Your task to perform on an android device: Open the Play Movies app and select the watchlist tab. Image 0: 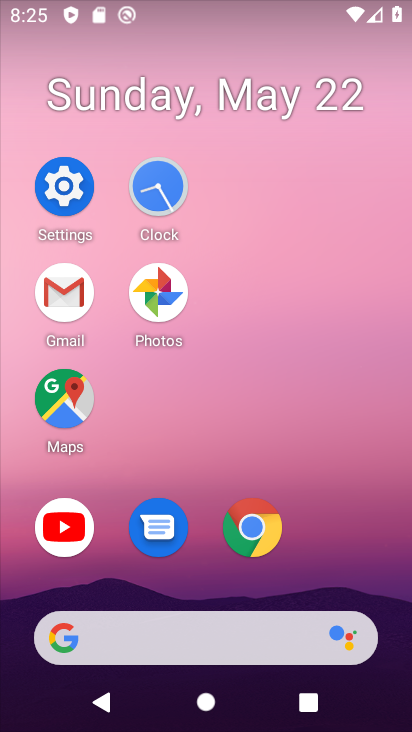
Step 0: drag from (362, 592) to (361, 108)
Your task to perform on an android device: Open the Play Movies app and select the watchlist tab. Image 1: 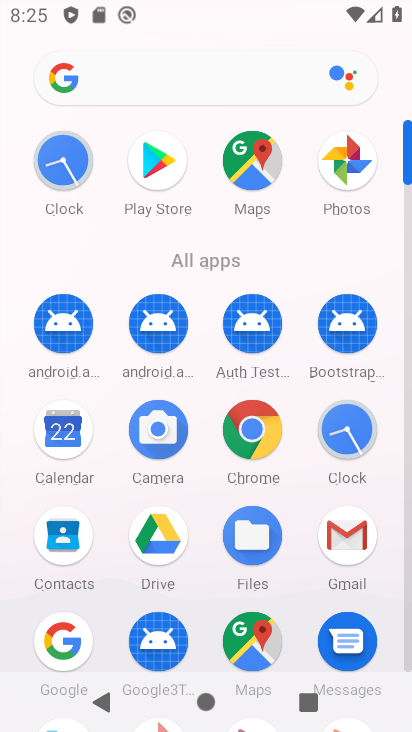
Step 1: drag from (291, 627) to (259, 166)
Your task to perform on an android device: Open the Play Movies app and select the watchlist tab. Image 2: 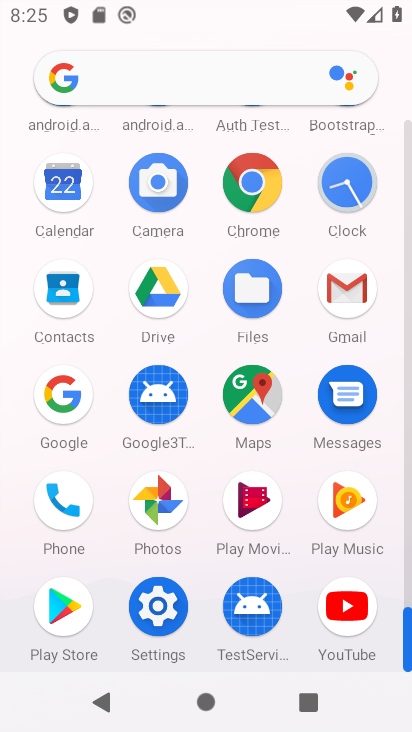
Step 2: click (266, 527)
Your task to perform on an android device: Open the Play Movies app and select the watchlist tab. Image 3: 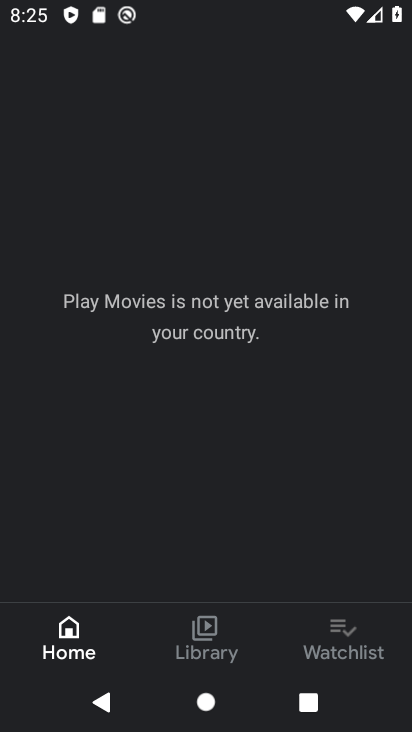
Step 3: click (355, 672)
Your task to perform on an android device: Open the Play Movies app and select the watchlist tab. Image 4: 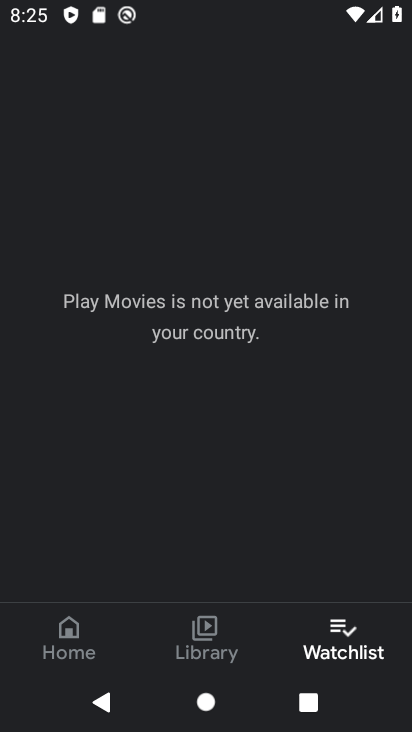
Step 4: task complete